Your task to perform on an android device: Open Google Chrome Image 0: 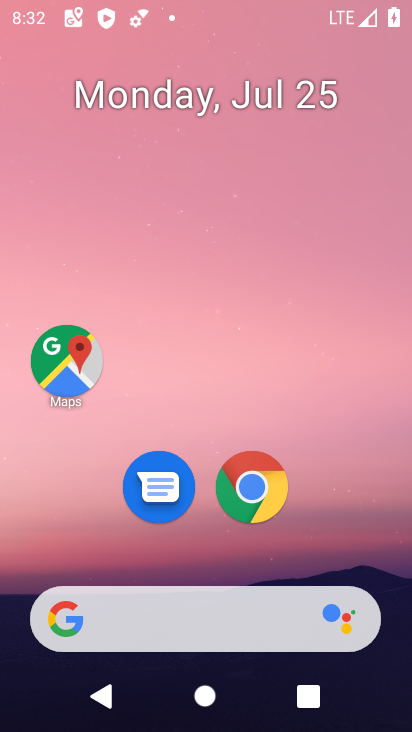
Step 0: click (251, 481)
Your task to perform on an android device: Open Google Chrome Image 1: 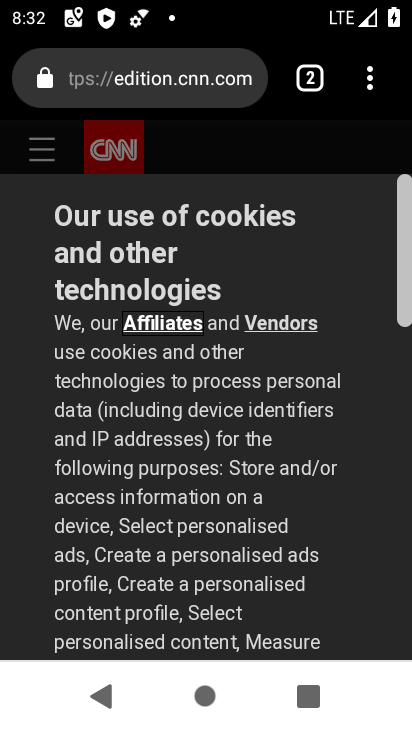
Step 1: task complete